Your task to perform on an android device: Show me recent news Image 0: 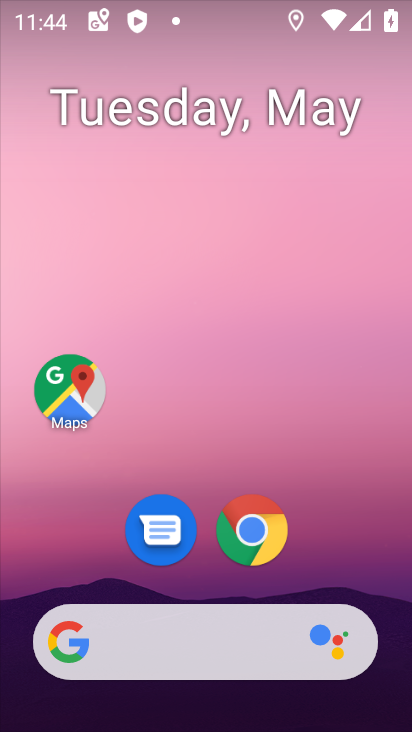
Step 0: click (251, 528)
Your task to perform on an android device: Show me recent news Image 1: 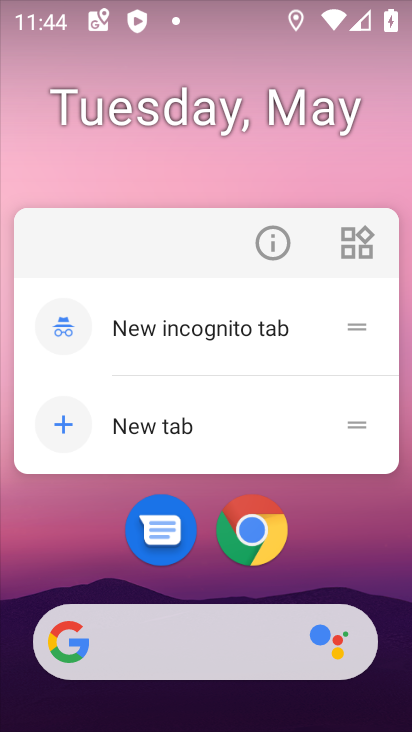
Step 1: click (267, 247)
Your task to perform on an android device: Show me recent news Image 2: 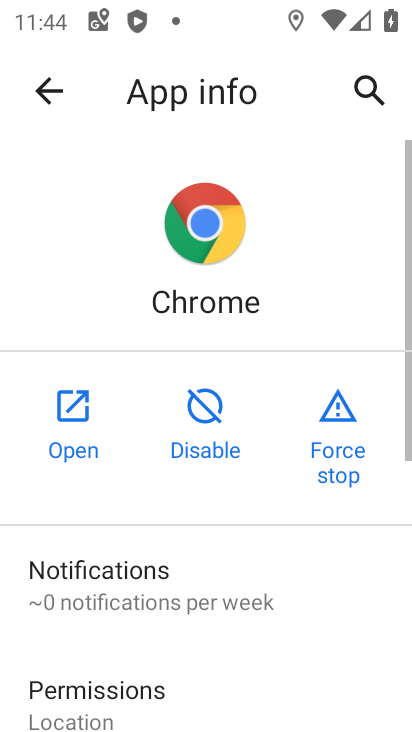
Step 2: click (65, 426)
Your task to perform on an android device: Show me recent news Image 3: 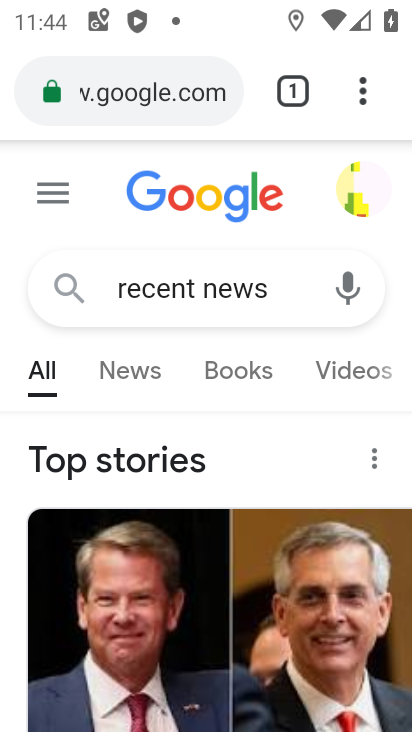
Step 3: click (145, 86)
Your task to perform on an android device: Show me recent news Image 4: 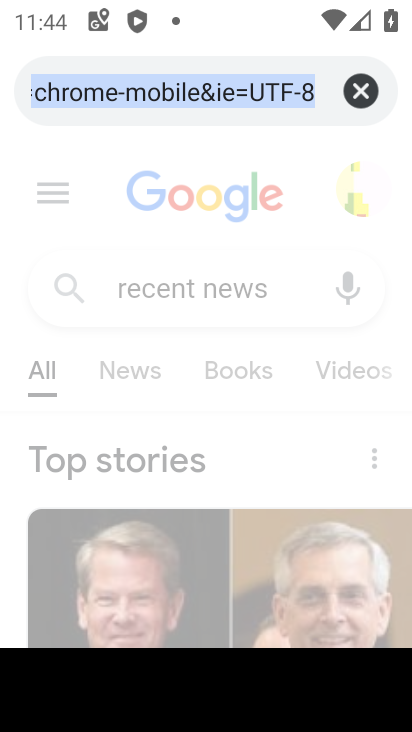
Step 4: type "recent"
Your task to perform on an android device: Show me recent news Image 5: 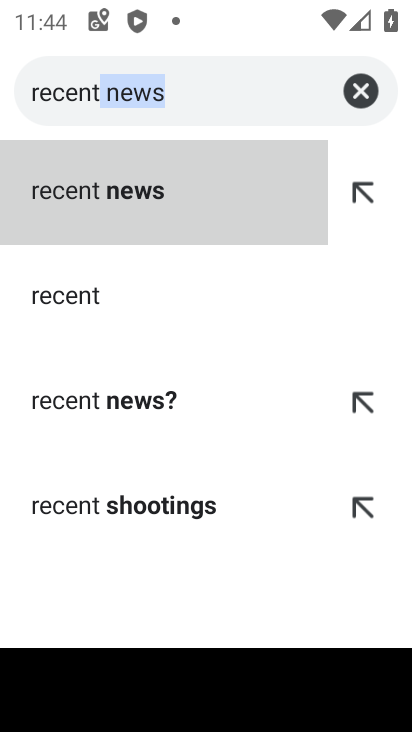
Step 5: click (178, 211)
Your task to perform on an android device: Show me recent news Image 6: 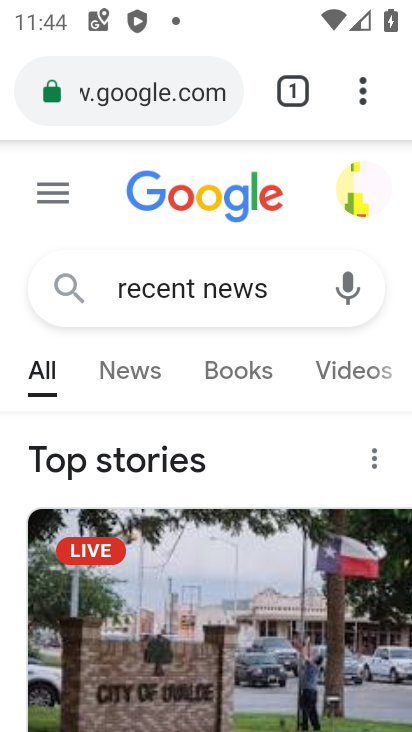
Step 6: task complete